Your task to perform on an android device: Go to wifi settings Image 0: 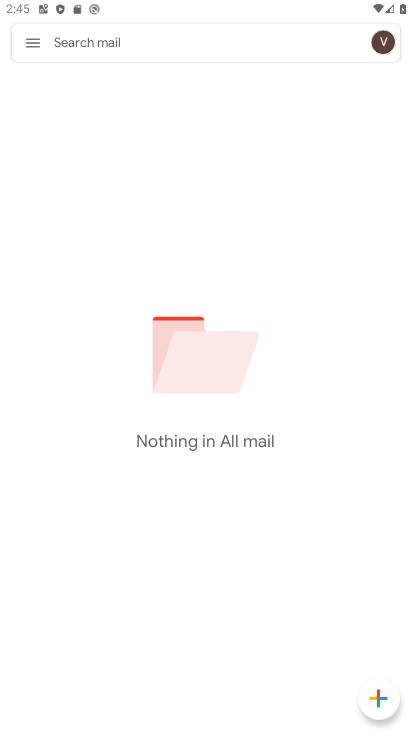
Step 0: press home button
Your task to perform on an android device: Go to wifi settings Image 1: 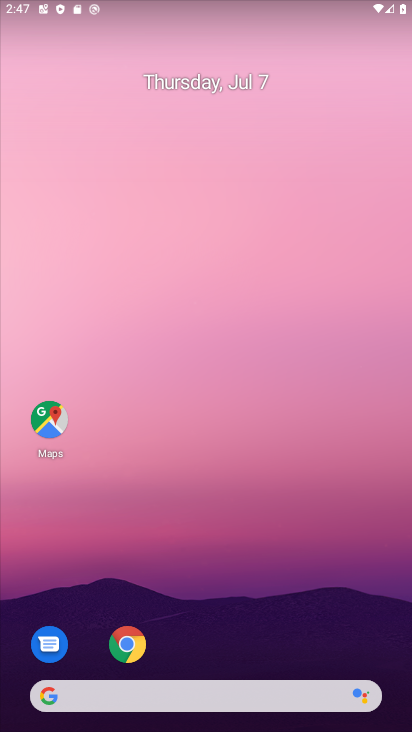
Step 1: drag from (289, 610) to (249, 178)
Your task to perform on an android device: Go to wifi settings Image 2: 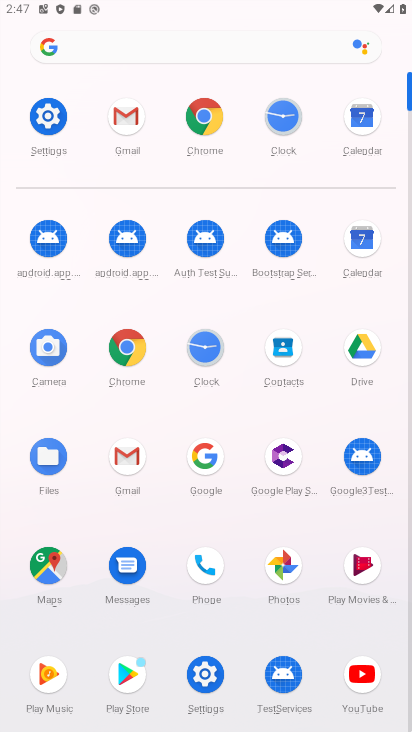
Step 2: click (40, 113)
Your task to perform on an android device: Go to wifi settings Image 3: 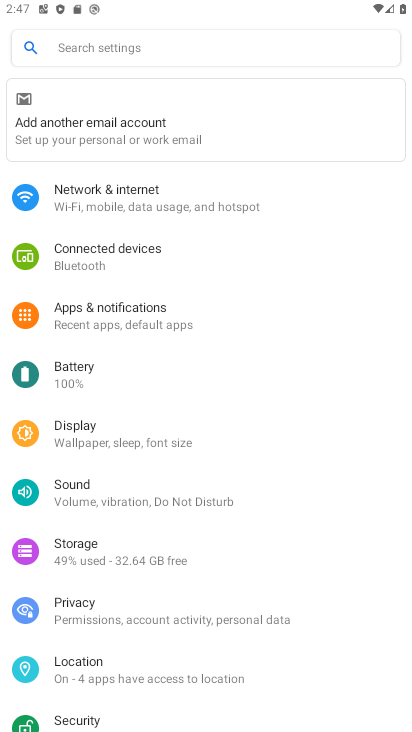
Step 3: click (113, 201)
Your task to perform on an android device: Go to wifi settings Image 4: 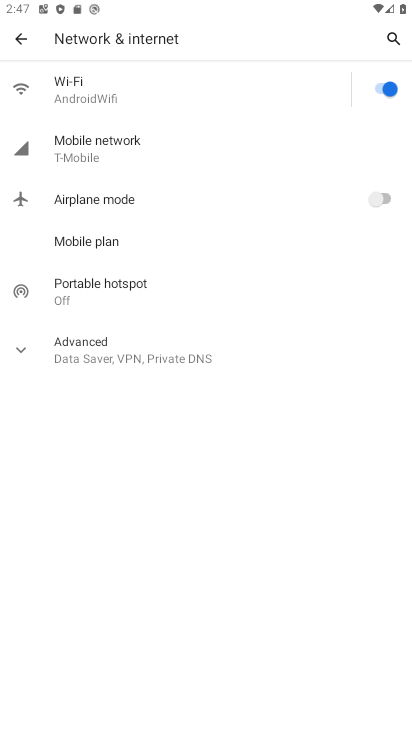
Step 4: click (69, 83)
Your task to perform on an android device: Go to wifi settings Image 5: 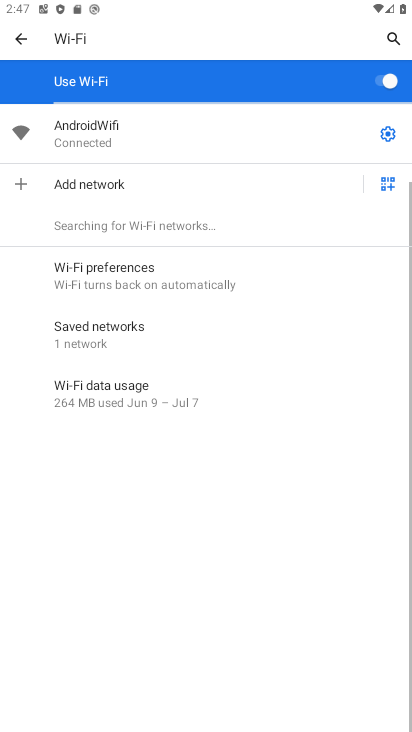
Step 5: task complete